Your task to perform on an android device: turn on translation in the chrome app Image 0: 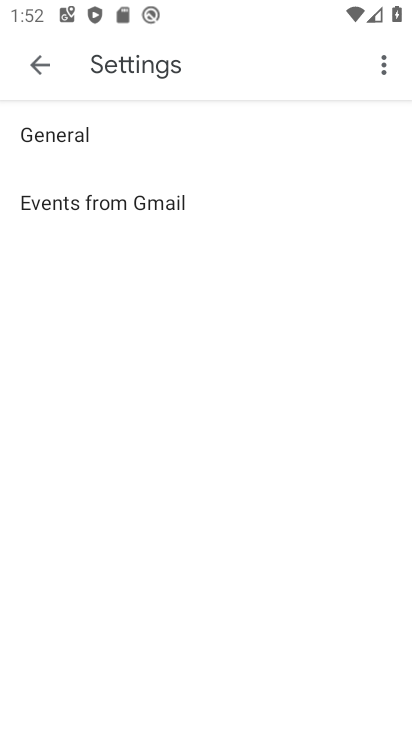
Step 0: press home button
Your task to perform on an android device: turn on translation in the chrome app Image 1: 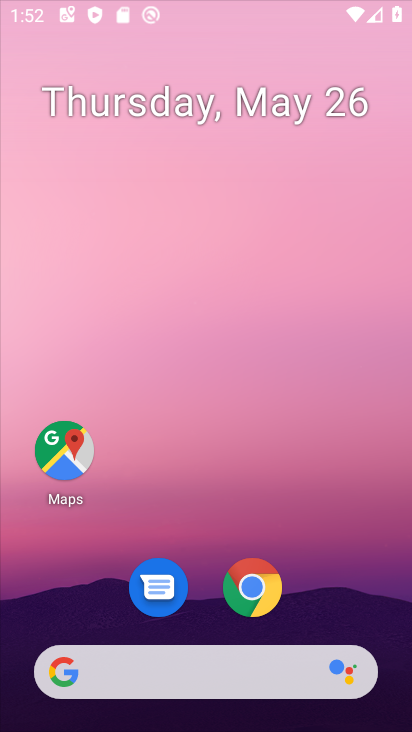
Step 1: drag from (272, 620) to (307, 107)
Your task to perform on an android device: turn on translation in the chrome app Image 2: 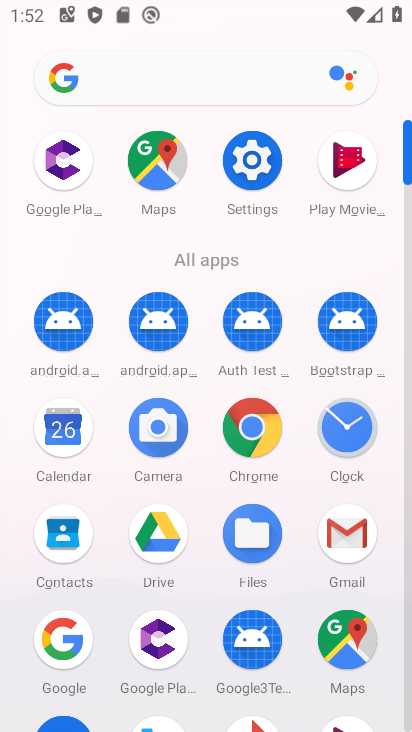
Step 2: click (258, 415)
Your task to perform on an android device: turn on translation in the chrome app Image 3: 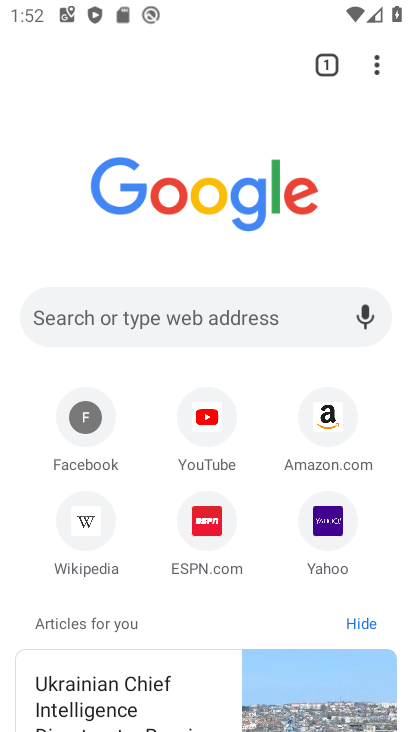
Step 3: drag from (380, 54) to (216, 561)
Your task to perform on an android device: turn on translation in the chrome app Image 4: 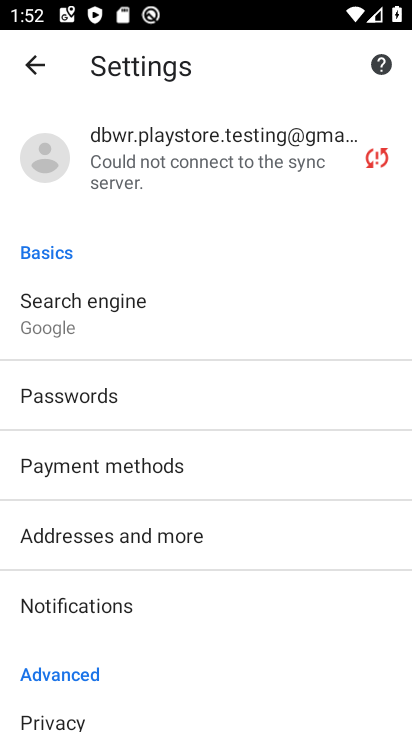
Step 4: drag from (161, 627) to (250, 59)
Your task to perform on an android device: turn on translation in the chrome app Image 5: 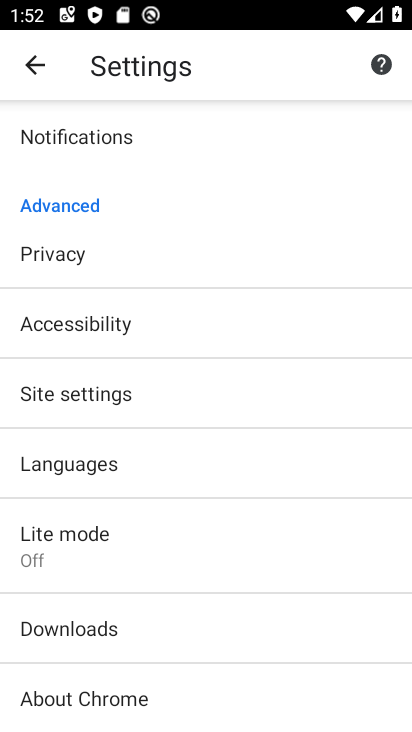
Step 5: click (102, 477)
Your task to perform on an android device: turn on translation in the chrome app Image 6: 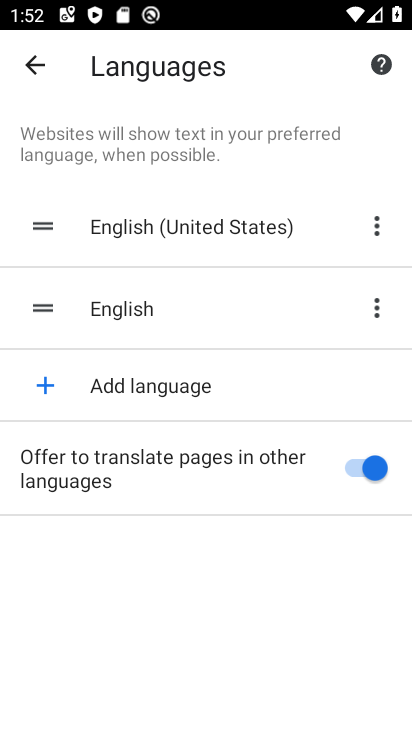
Step 6: task complete